Your task to perform on an android device: turn on the 24-hour format for clock Image 0: 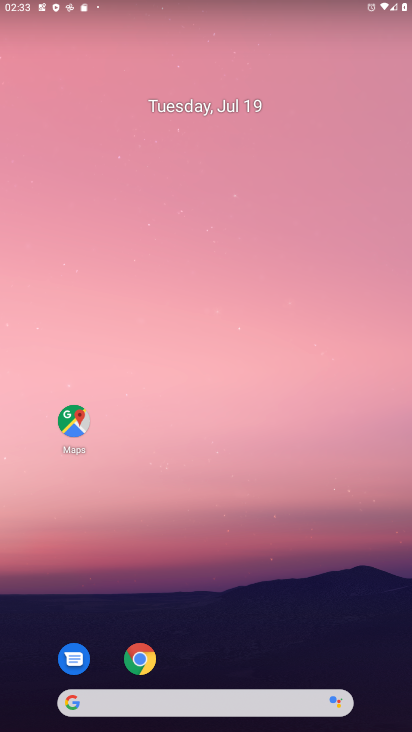
Step 0: press home button
Your task to perform on an android device: turn on the 24-hour format for clock Image 1: 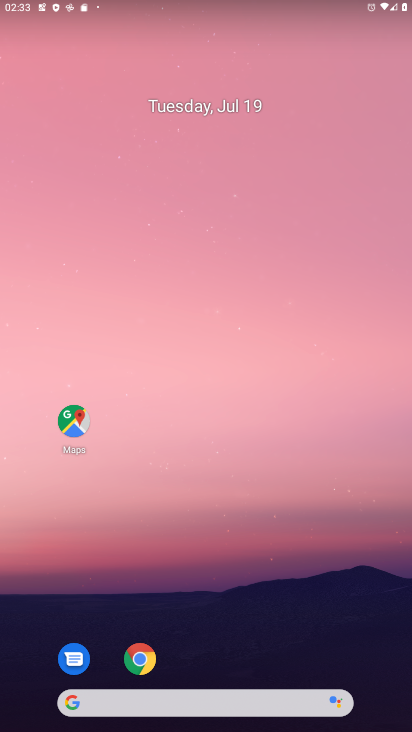
Step 1: drag from (244, 713) to (183, 293)
Your task to perform on an android device: turn on the 24-hour format for clock Image 2: 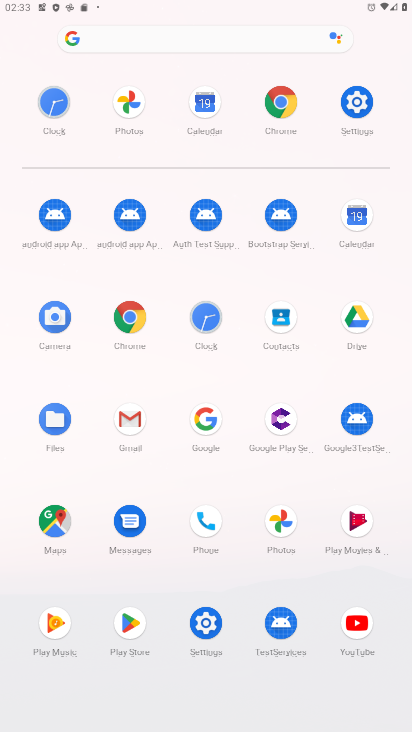
Step 2: click (225, 330)
Your task to perform on an android device: turn on the 24-hour format for clock Image 3: 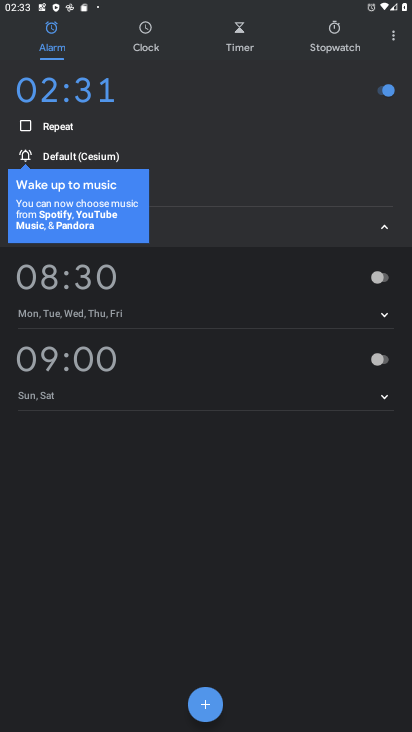
Step 3: click (400, 41)
Your task to perform on an android device: turn on the 24-hour format for clock Image 4: 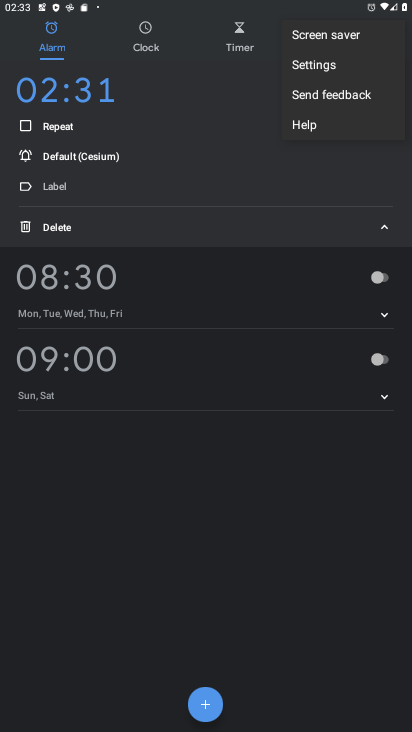
Step 4: click (340, 72)
Your task to perform on an android device: turn on the 24-hour format for clock Image 5: 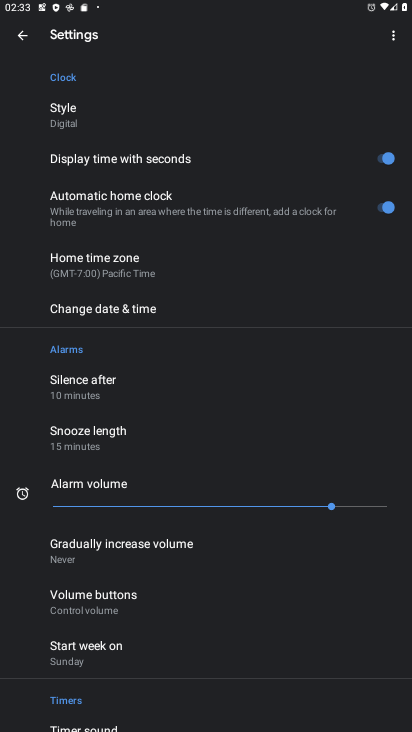
Step 5: click (139, 317)
Your task to perform on an android device: turn on the 24-hour format for clock Image 6: 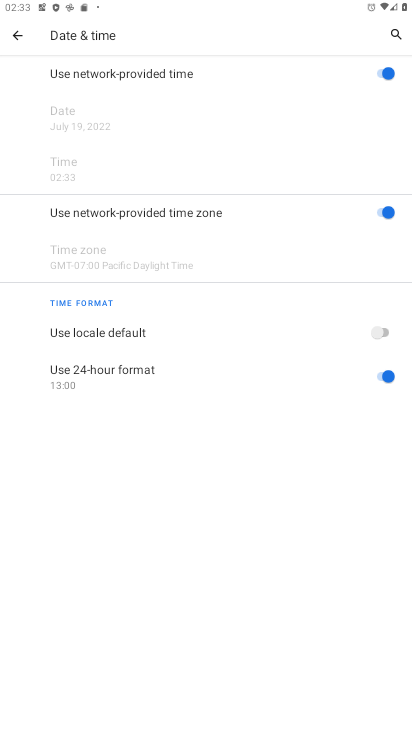
Step 6: task complete